Your task to perform on an android device: What is the recent news? Image 0: 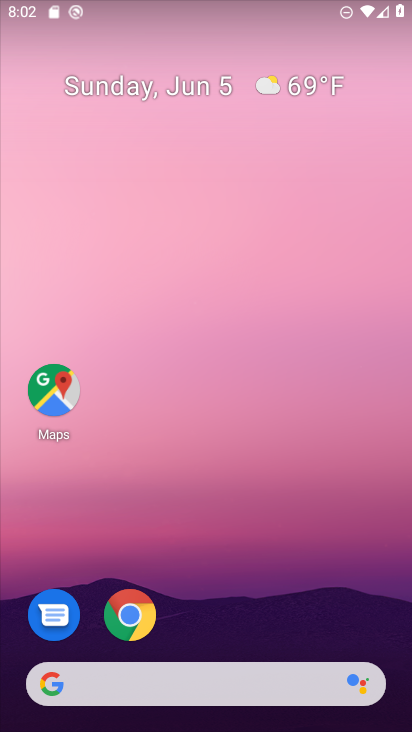
Step 0: drag from (198, 153) to (201, 35)
Your task to perform on an android device: What is the recent news? Image 1: 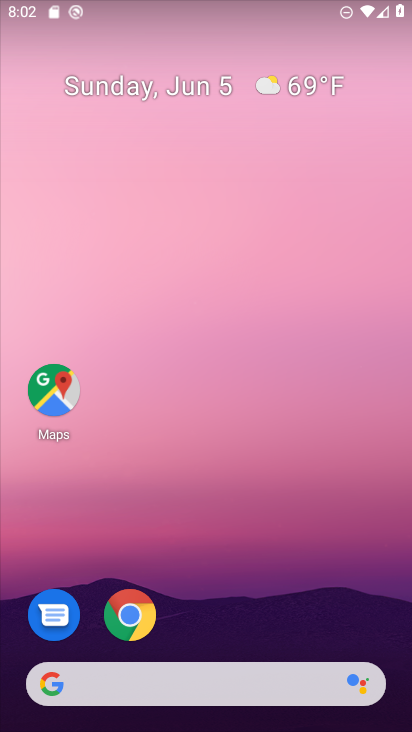
Step 1: click (195, 684)
Your task to perform on an android device: What is the recent news? Image 2: 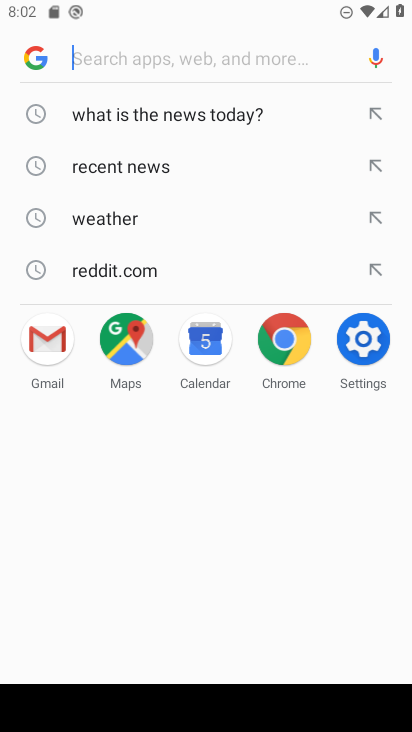
Step 2: click (196, 125)
Your task to perform on an android device: What is the recent news? Image 3: 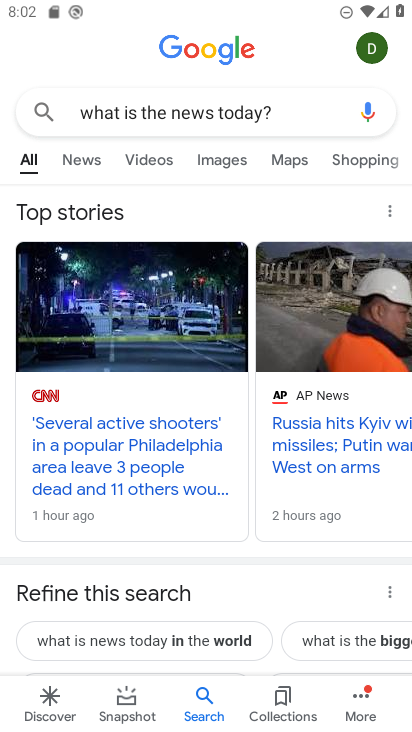
Step 3: task complete